Your task to perform on an android device: Search for seafood restaurants on Google Maps Image 0: 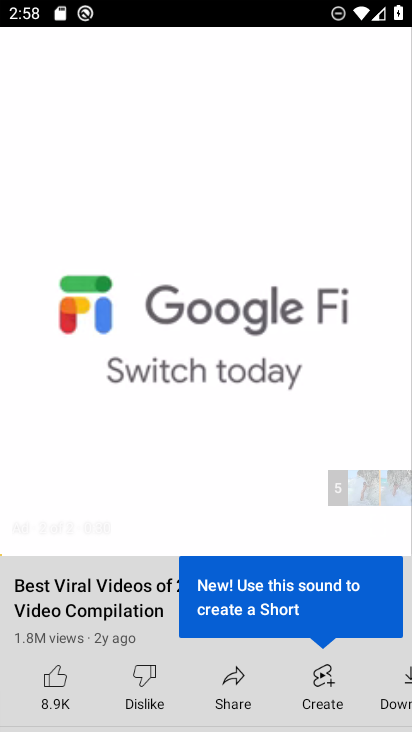
Step 0: press back button
Your task to perform on an android device: Search for seafood restaurants on Google Maps Image 1: 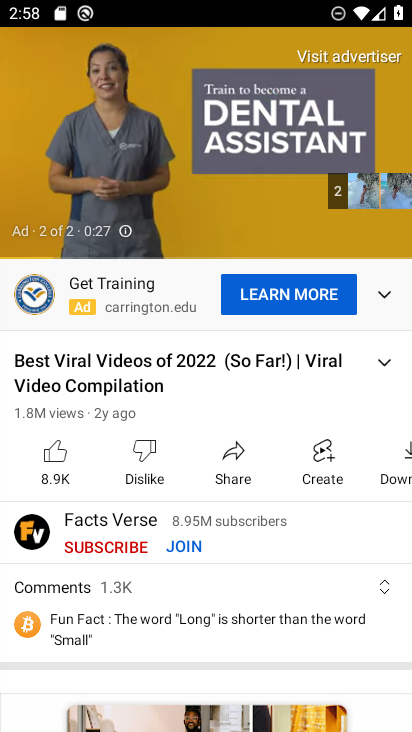
Step 1: press home button
Your task to perform on an android device: Search for seafood restaurants on Google Maps Image 2: 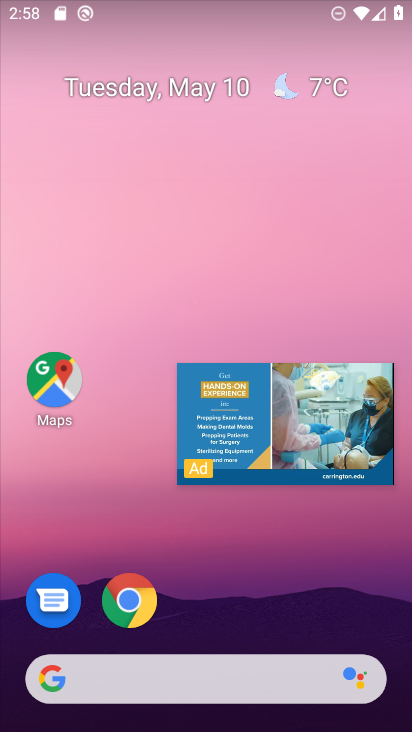
Step 2: drag from (303, 439) to (176, 727)
Your task to perform on an android device: Search for seafood restaurants on Google Maps Image 3: 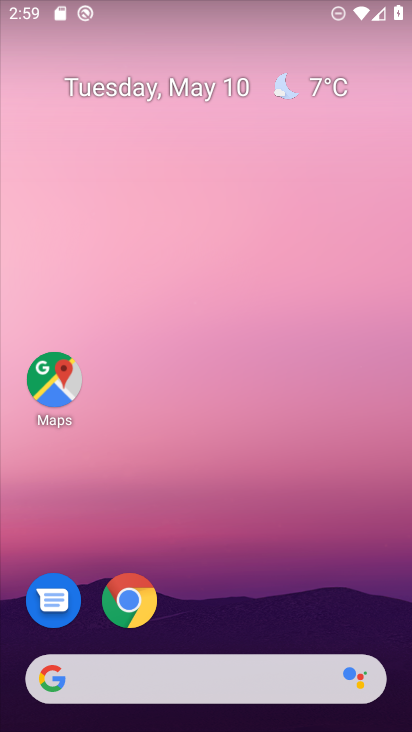
Step 3: click (57, 396)
Your task to perform on an android device: Search for seafood restaurants on Google Maps Image 4: 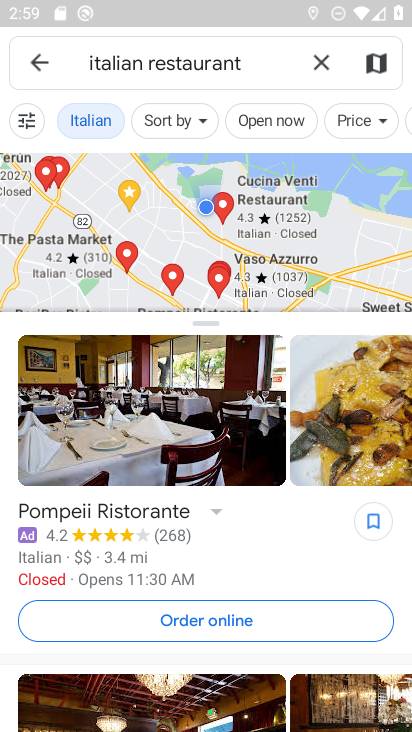
Step 4: click (319, 66)
Your task to perform on an android device: Search for seafood restaurants on Google Maps Image 5: 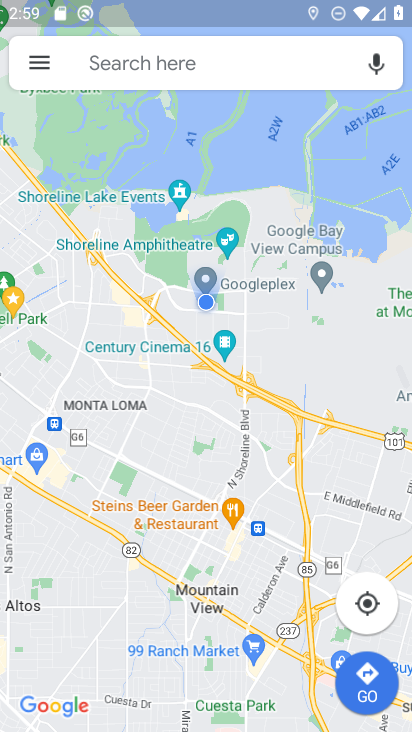
Step 5: click (319, 66)
Your task to perform on an android device: Search for seafood restaurants on Google Maps Image 6: 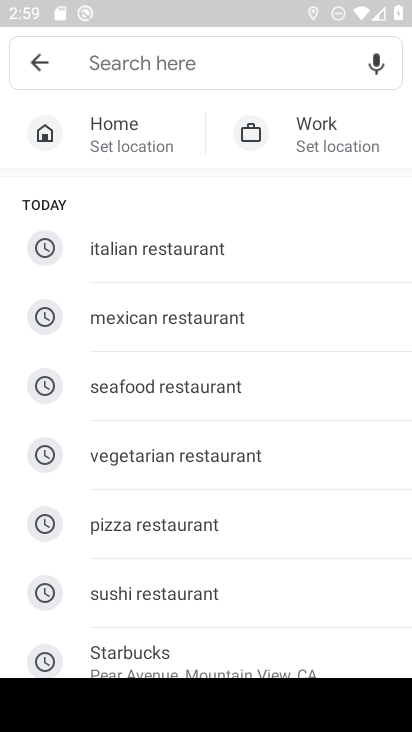
Step 6: type "sea"
Your task to perform on an android device: Search for seafood restaurants on Google Maps Image 7: 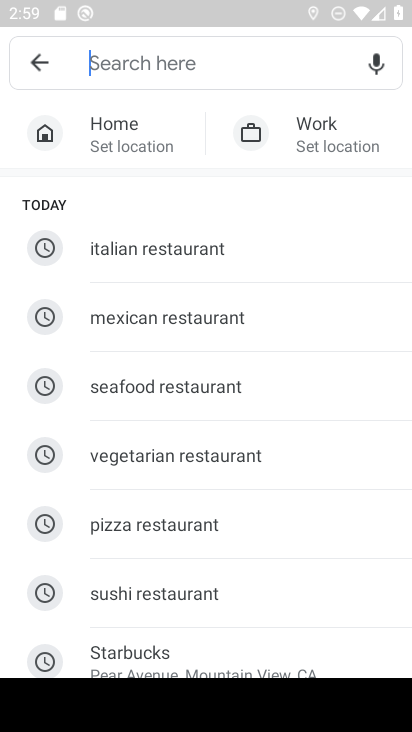
Step 7: click (217, 376)
Your task to perform on an android device: Search for seafood restaurants on Google Maps Image 8: 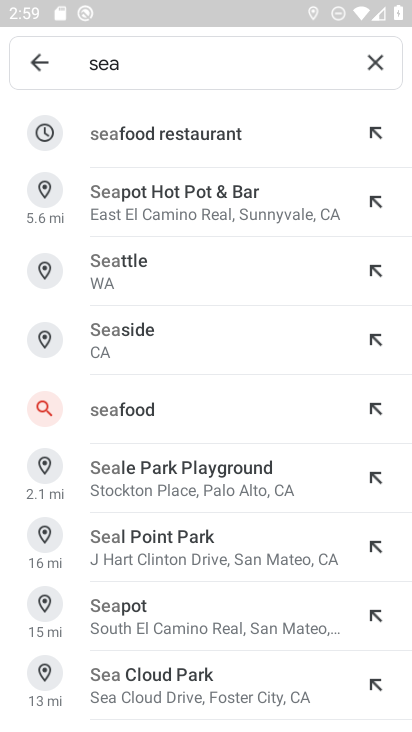
Step 8: click (206, 156)
Your task to perform on an android device: Search for seafood restaurants on Google Maps Image 9: 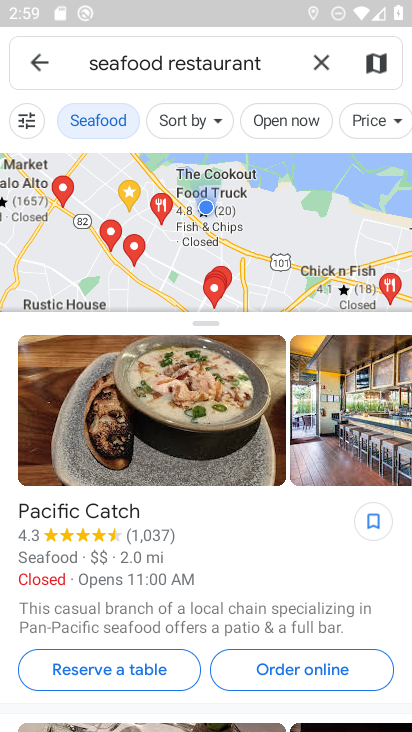
Step 9: task complete